Your task to perform on an android device: clear all cookies in the chrome app Image 0: 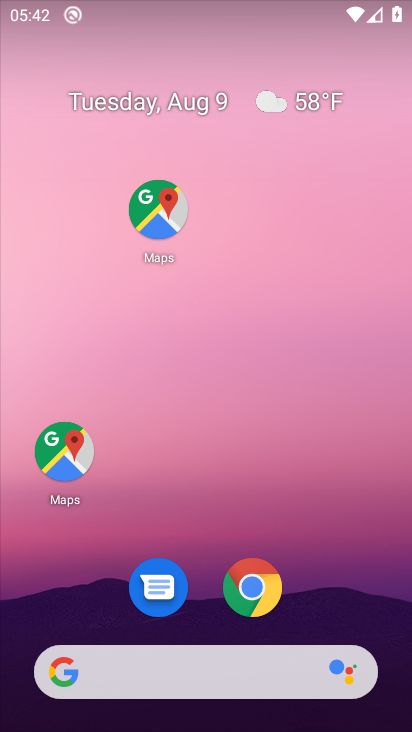
Step 0: drag from (317, 652) to (252, 22)
Your task to perform on an android device: clear all cookies in the chrome app Image 1: 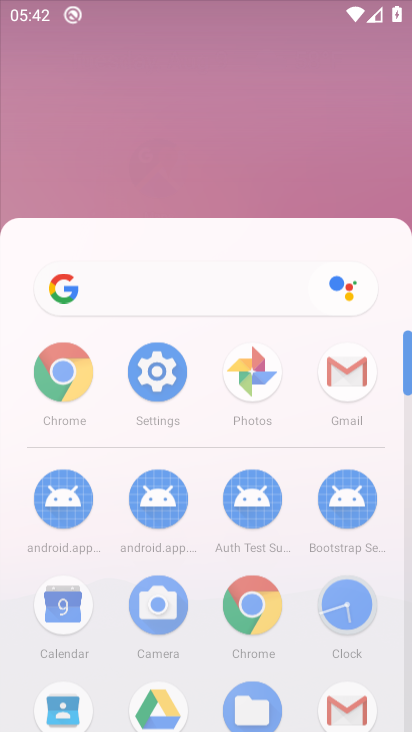
Step 1: drag from (222, 614) to (197, 142)
Your task to perform on an android device: clear all cookies in the chrome app Image 2: 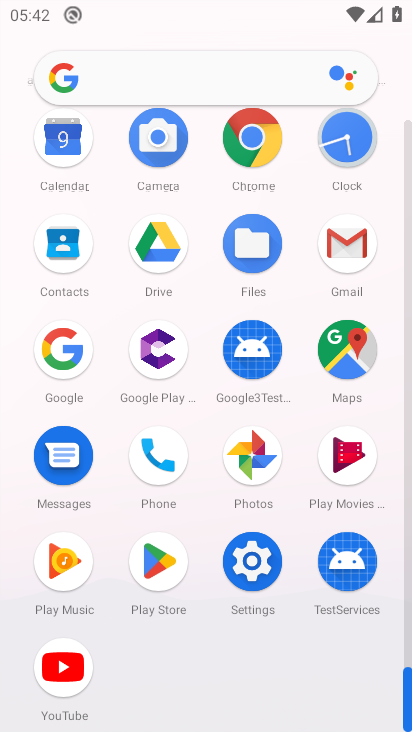
Step 2: click (255, 144)
Your task to perform on an android device: clear all cookies in the chrome app Image 3: 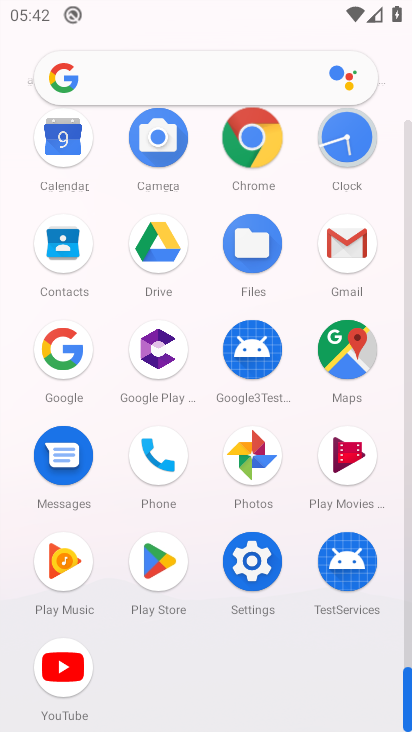
Step 3: click (255, 144)
Your task to perform on an android device: clear all cookies in the chrome app Image 4: 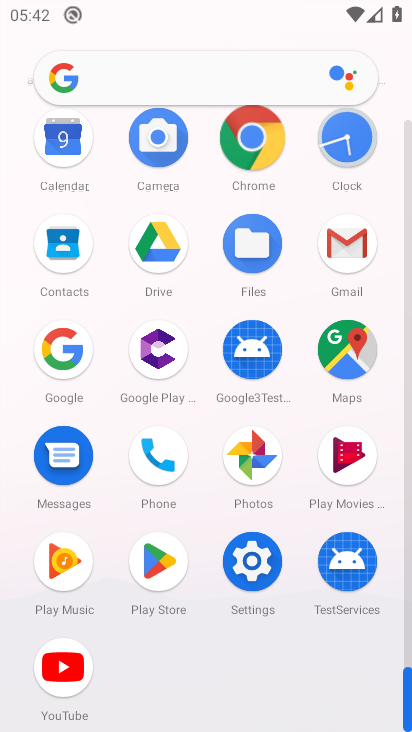
Step 4: click (255, 144)
Your task to perform on an android device: clear all cookies in the chrome app Image 5: 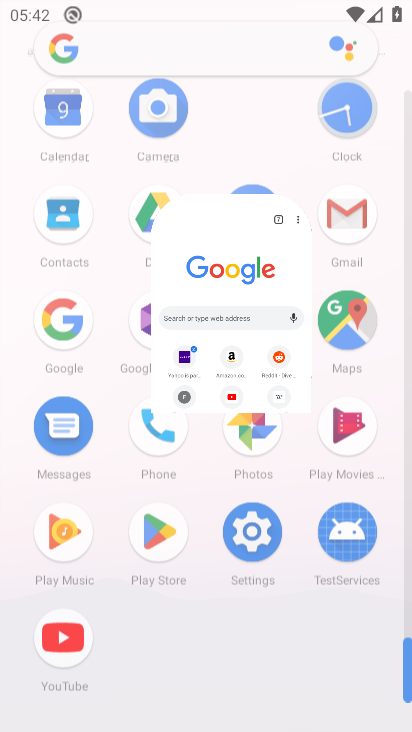
Step 5: click (255, 144)
Your task to perform on an android device: clear all cookies in the chrome app Image 6: 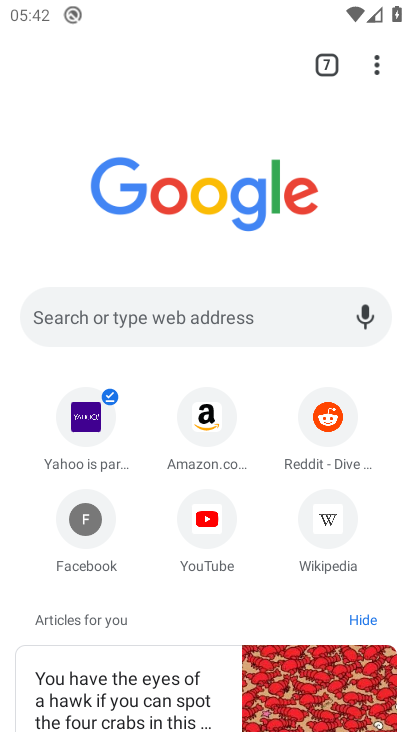
Step 6: drag from (378, 66) to (137, 570)
Your task to perform on an android device: clear all cookies in the chrome app Image 7: 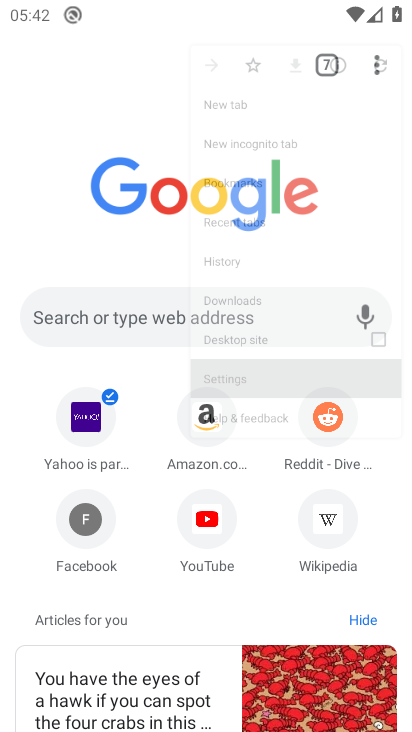
Step 7: click (136, 570)
Your task to perform on an android device: clear all cookies in the chrome app Image 8: 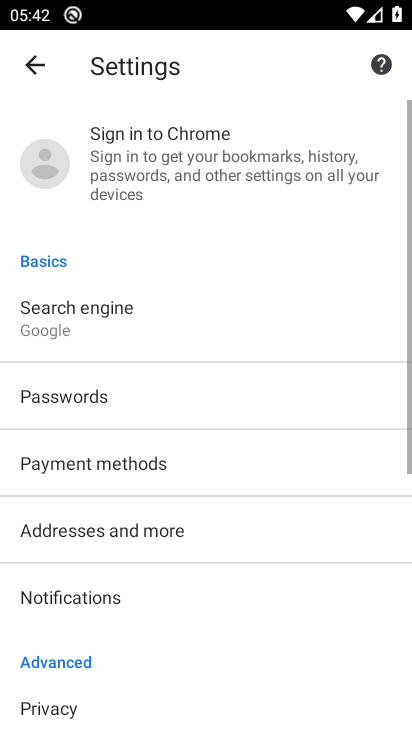
Step 8: drag from (179, 528) to (179, 154)
Your task to perform on an android device: clear all cookies in the chrome app Image 9: 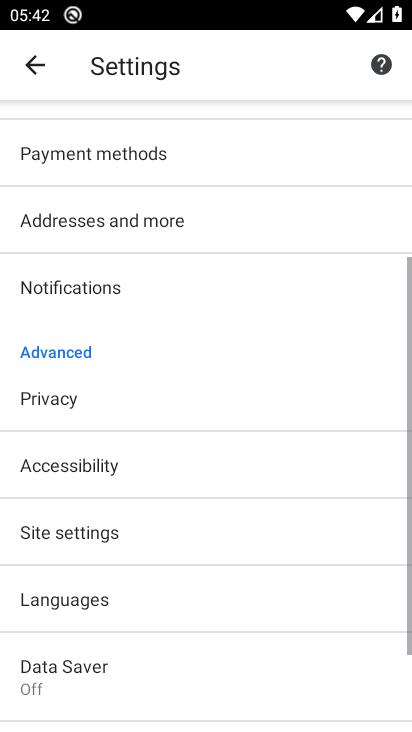
Step 9: drag from (177, 601) to (183, 183)
Your task to perform on an android device: clear all cookies in the chrome app Image 10: 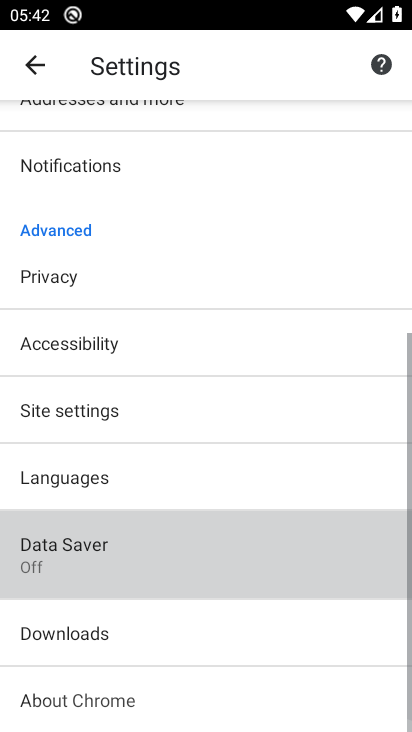
Step 10: drag from (133, 574) to (137, 247)
Your task to perform on an android device: clear all cookies in the chrome app Image 11: 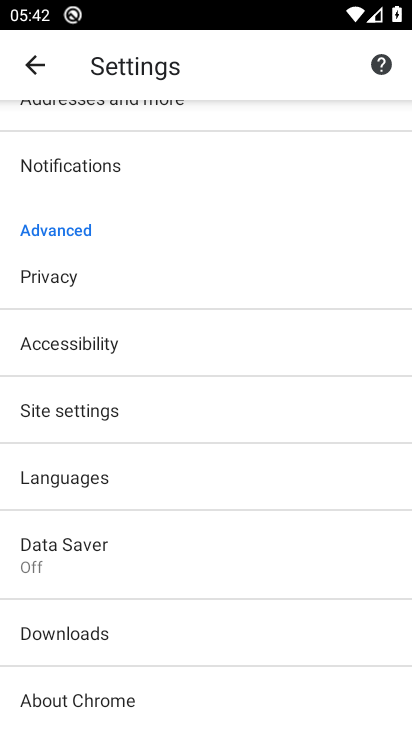
Step 11: click (48, 409)
Your task to perform on an android device: clear all cookies in the chrome app Image 12: 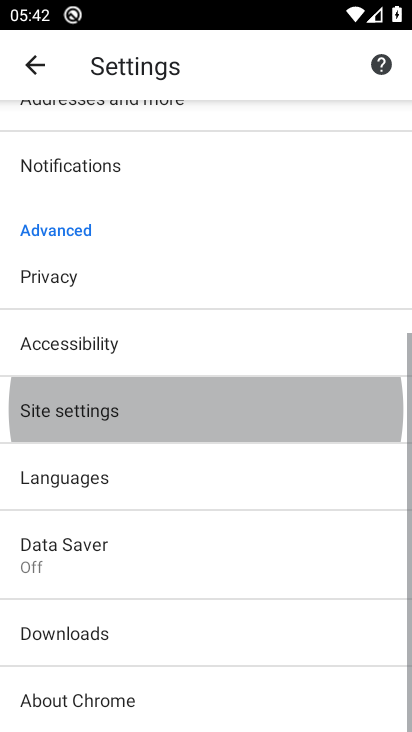
Step 12: click (48, 412)
Your task to perform on an android device: clear all cookies in the chrome app Image 13: 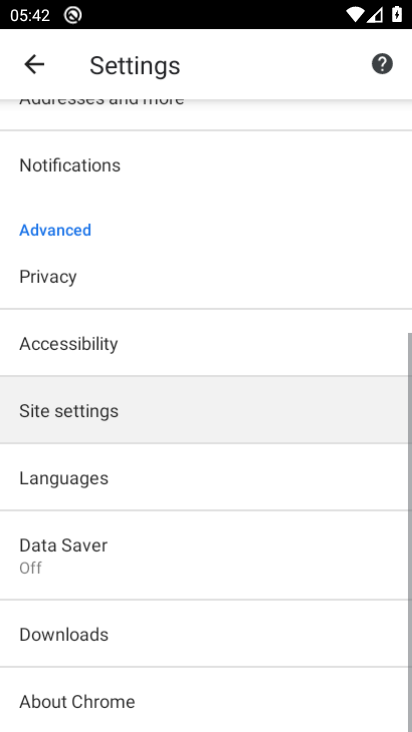
Step 13: click (49, 413)
Your task to perform on an android device: clear all cookies in the chrome app Image 14: 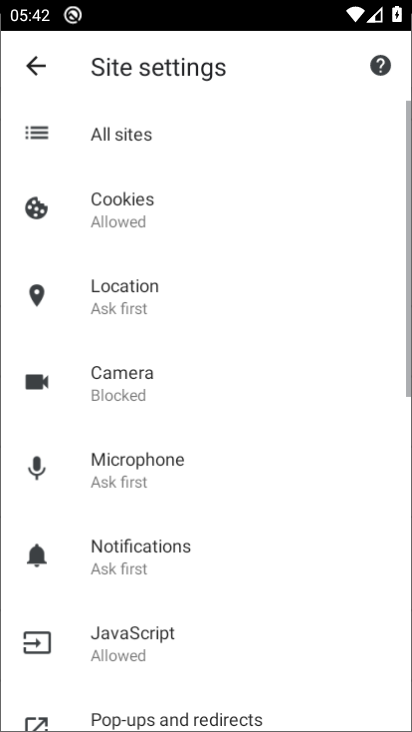
Step 14: click (53, 411)
Your task to perform on an android device: clear all cookies in the chrome app Image 15: 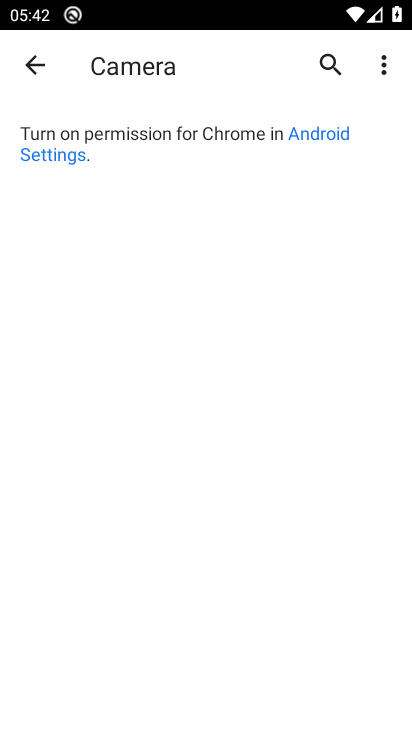
Step 15: click (26, 66)
Your task to perform on an android device: clear all cookies in the chrome app Image 16: 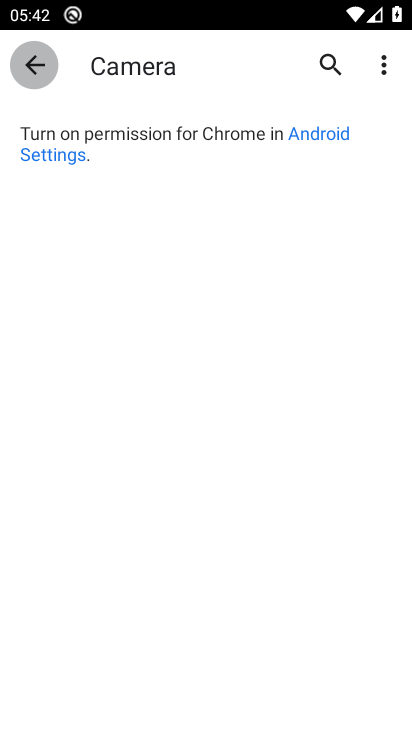
Step 16: click (21, 62)
Your task to perform on an android device: clear all cookies in the chrome app Image 17: 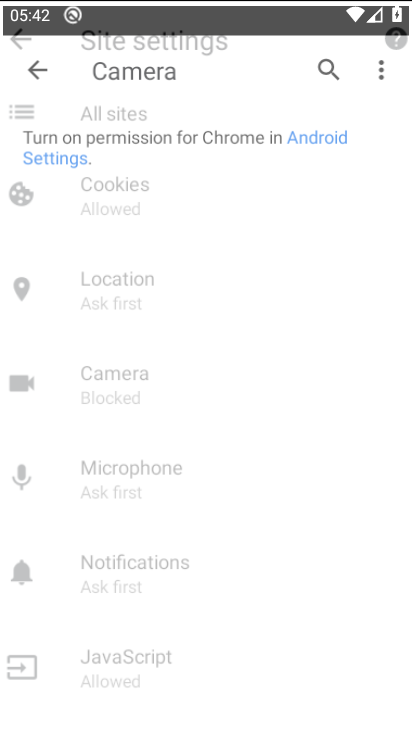
Step 17: click (21, 62)
Your task to perform on an android device: clear all cookies in the chrome app Image 18: 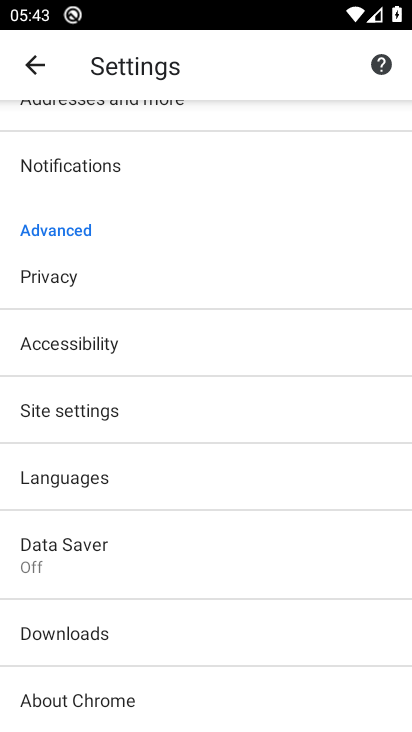
Step 18: click (63, 412)
Your task to perform on an android device: clear all cookies in the chrome app Image 19: 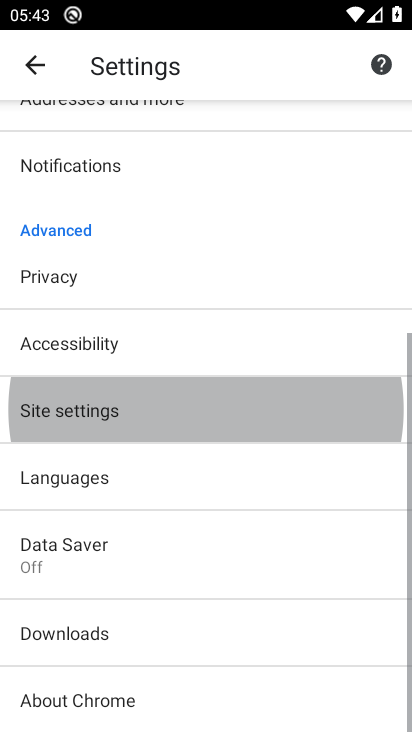
Step 19: click (63, 412)
Your task to perform on an android device: clear all cookies in the chrome app Image 20: 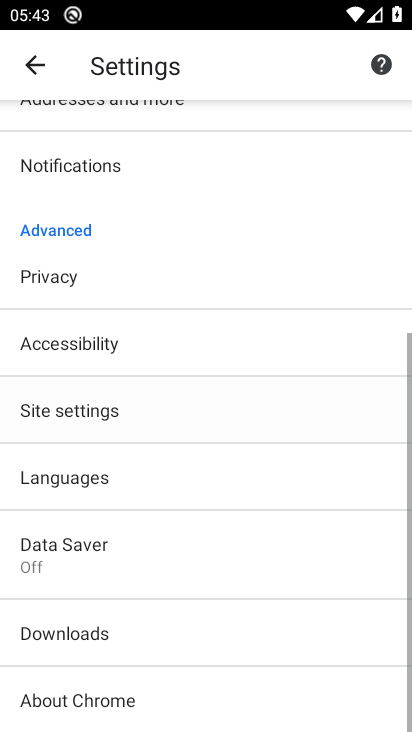
Step 20: click (63, 412)
Your task to perform on an android device: clear all cookies in the chrome app Image 21: 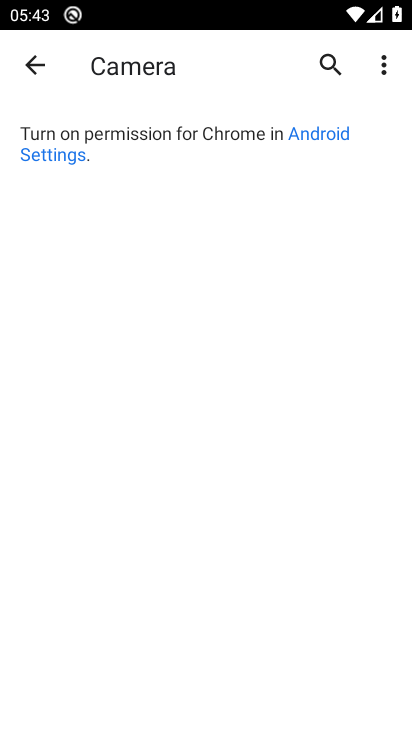
Step 21: click (27, 63)
Your task to perform on an android device: clear all cookies in the chrome app Image 22: 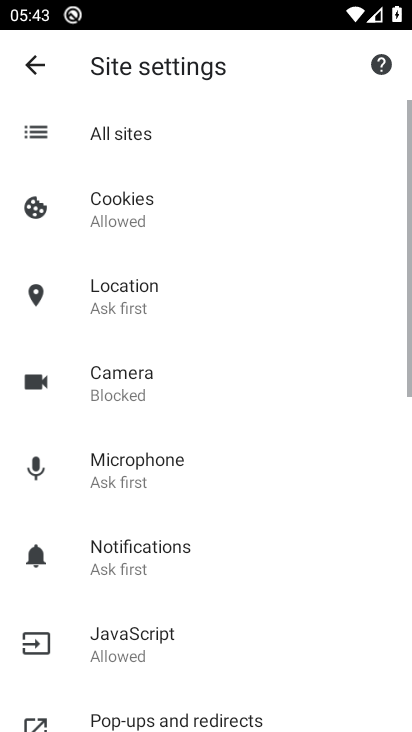
Step 22: click (124, 198)
Your task to perform on an android device: clear all cookies in the chrome app Image 23: 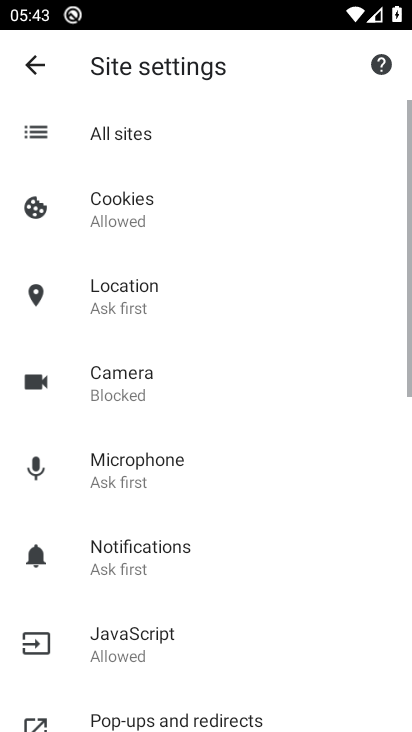
Step 23: click (123, 197)
Your task to perform on an android device: clear all cookies in the chrome app Image 24: 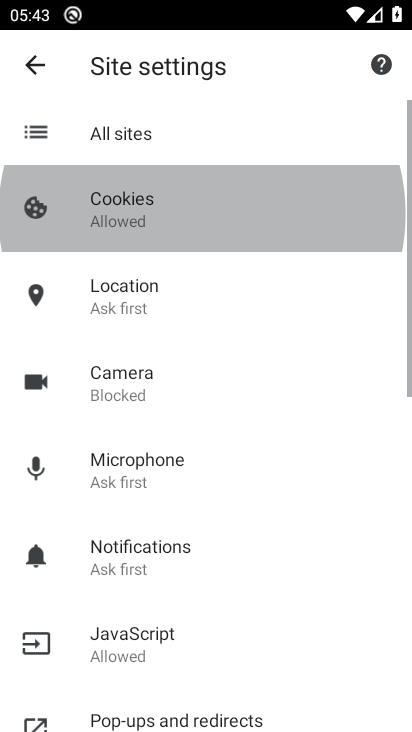
Step 24: click (123, 197)
Your task to perform on an android device: clear all cookies in the chrome app Image 25: 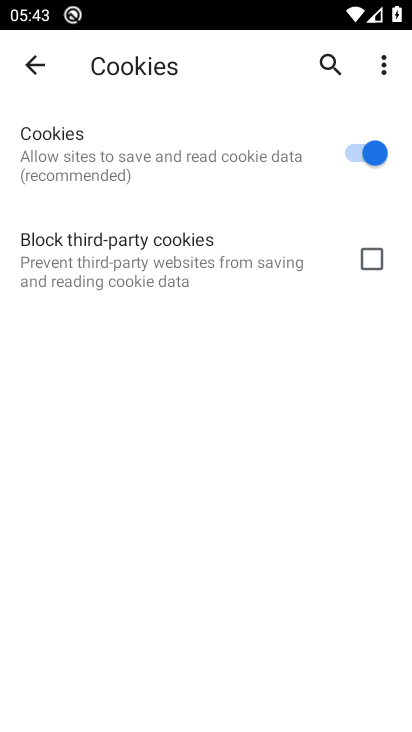
Step 25: click (370, 146)
Your task to perform on an android device: clear all cookies in the chrome app Image 26: 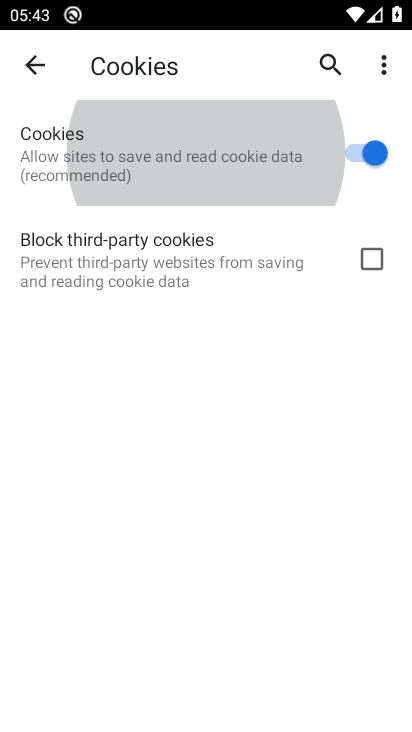
Step 26: click (370, 146)
Your task to perform on an android device: clear all cookies in the chrome app Image 27: 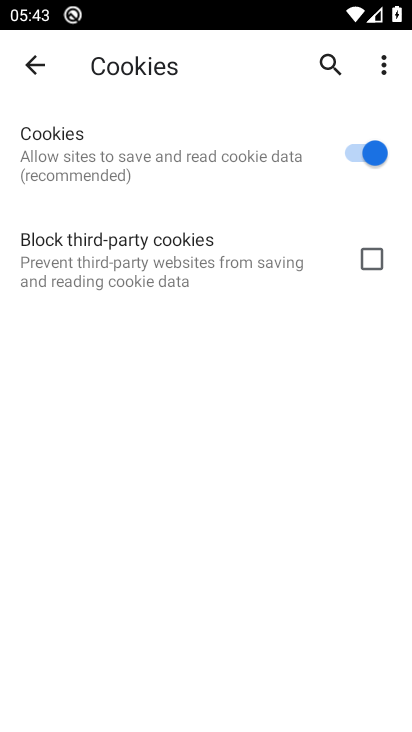
Step 27: click (361, 145)
Your task to perform on an android device: clear all cookies in the chrome app Image 28: 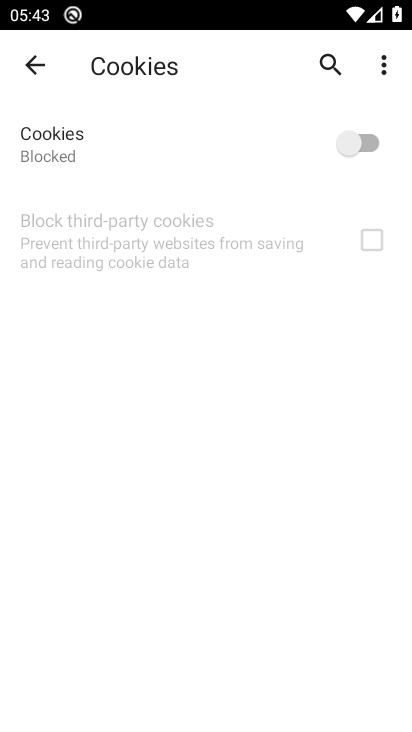
Step 28: task complete